Your task to perform on an android device: Go to network settings Image 0: 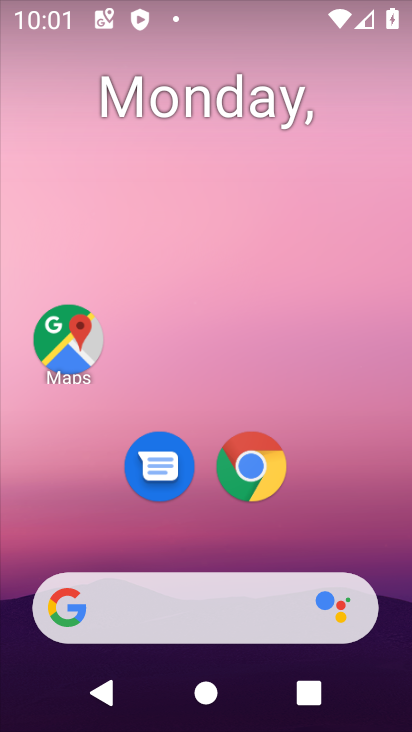
Step 0: drag from (180, 543) to (196, 213)
Your task to perform on an android device: Go to network settings Image 1: 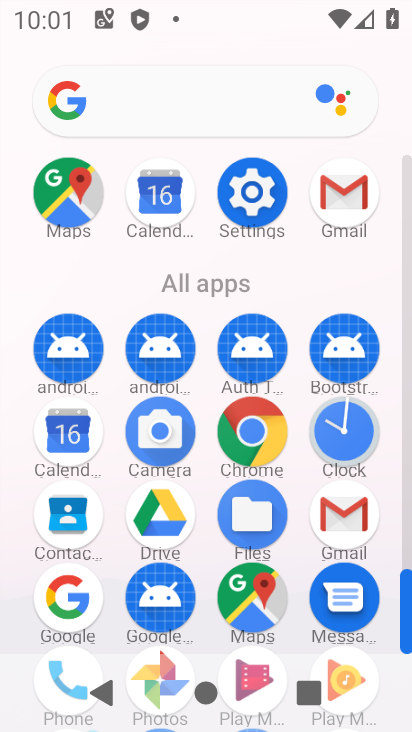
Step 1: click (254, 193)
Your task to perform on an android device: Go to network settings Image 2: 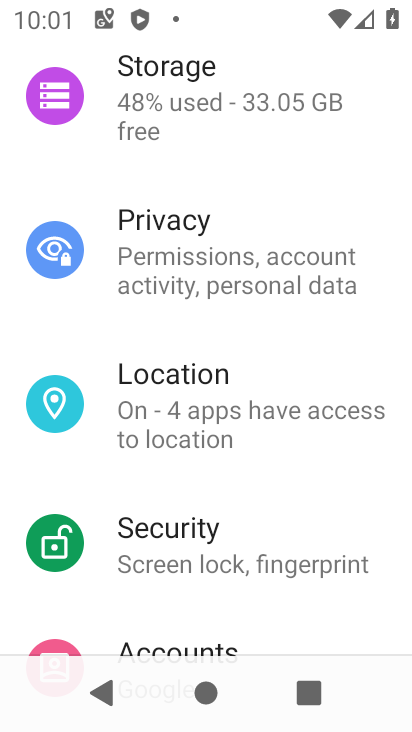
Step 2: drag from (233, 154) to (219, 596)
Your task to perform on an android device: Go to network settings Image 3: 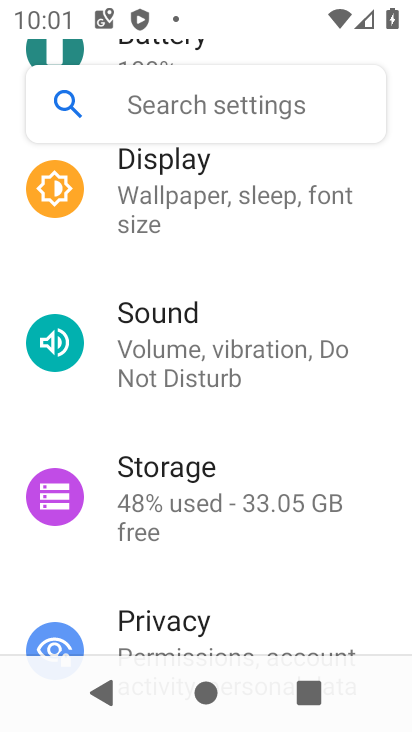
Step 3: drag from (327, 213) to (282, 651)
Your task to perform on an android device: Go to network settings Image 4: 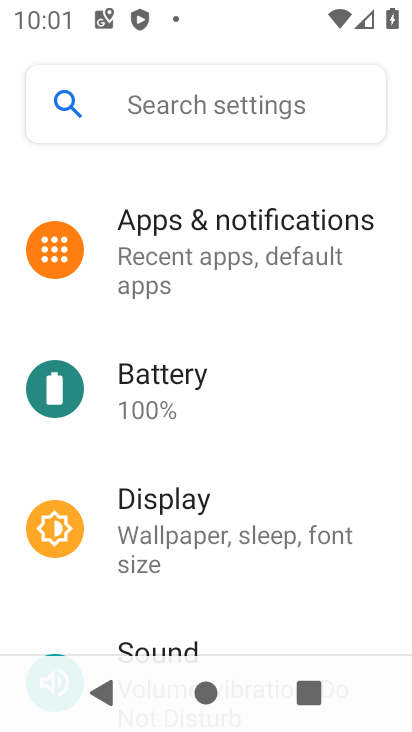
Step 4: drag from (233, 175) to (200, 564)
Your task to perform on an android device: Go to network settings Image 5: 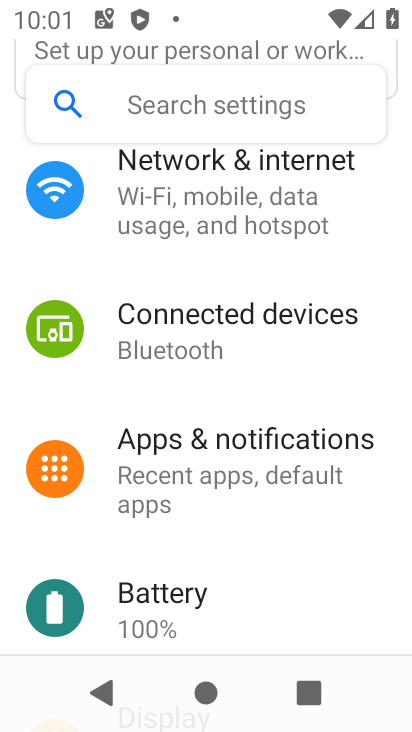
Step 5: click (166, 179)
Your task to perform on an android device: Go to network settings Image 6: 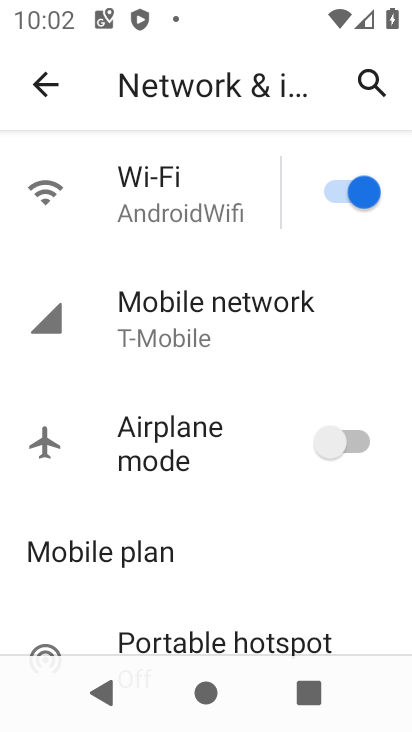
Step 6: task complete